Your task to perform on an android device: Open the calendar app, open the side menu, and click the "Day" option Image 0: 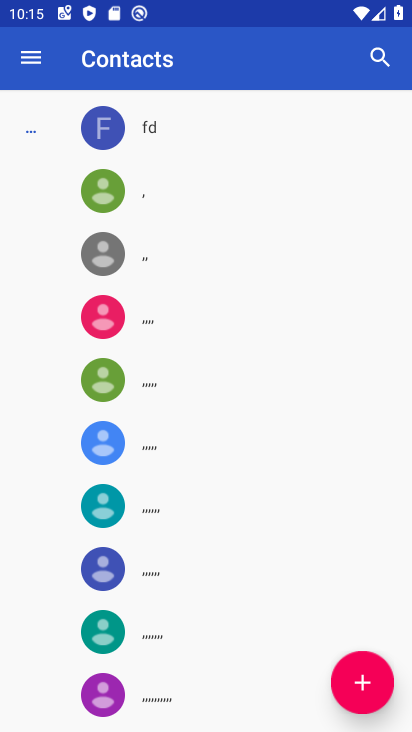
Step 0: press home button
Your task to perform on an android device: Open the calendar app, open the side menu, and click the "Day" option Image 1: 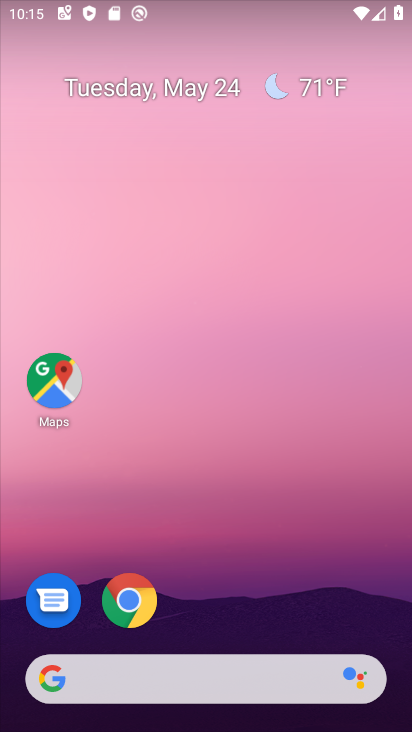
Step 1: drag from (268, 593) to (132, 32)
Your task to perform on an android device: Open the calendar app, open the side menu, and click the "Day" option Image 2: 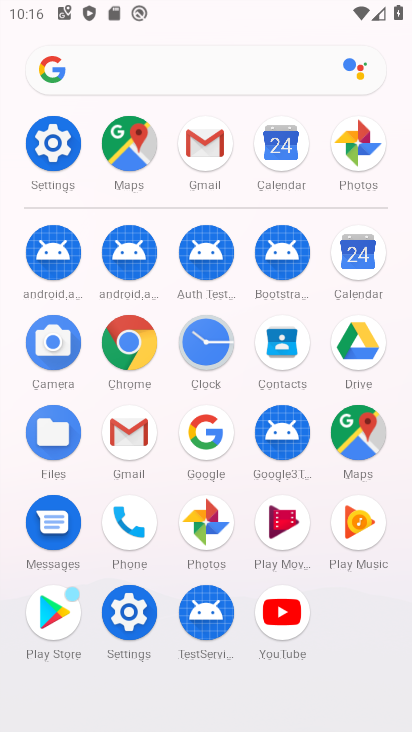
Step 2: click (351, 278)
Your task to perform on an android device: Open the calendar app, open the side menu, and click the "Day" option Image 3: 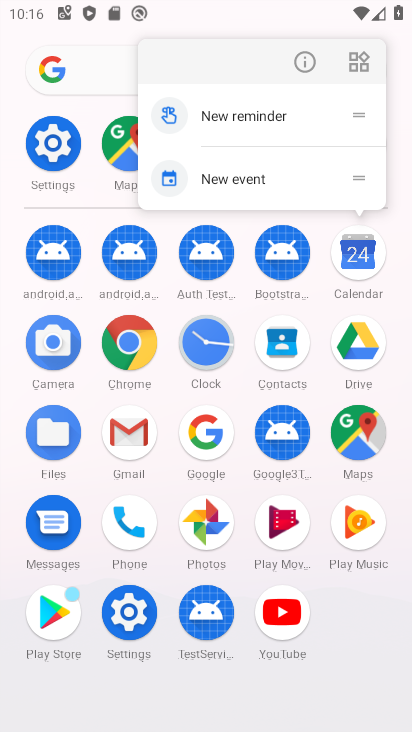
Step 3: click (374, 263)
Your task to perform on an android device: Open the calendar app, open the side menu, and click the "Day" option Image 4: 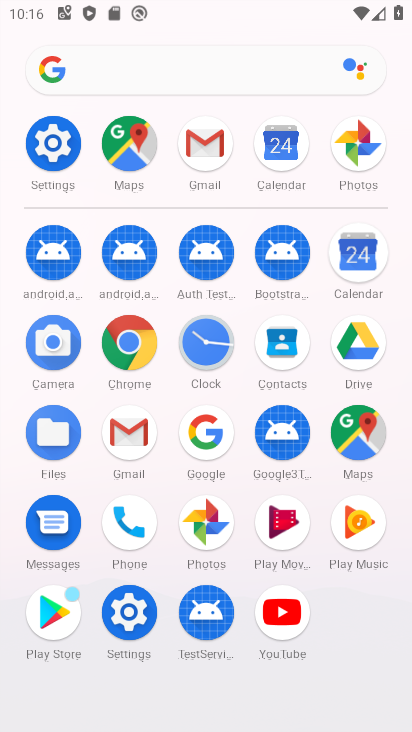
Step 4: click (354, 291)
Your task to perform on an android device: Open the calendar app, open the side menu, and click the "Day" option Image 5: 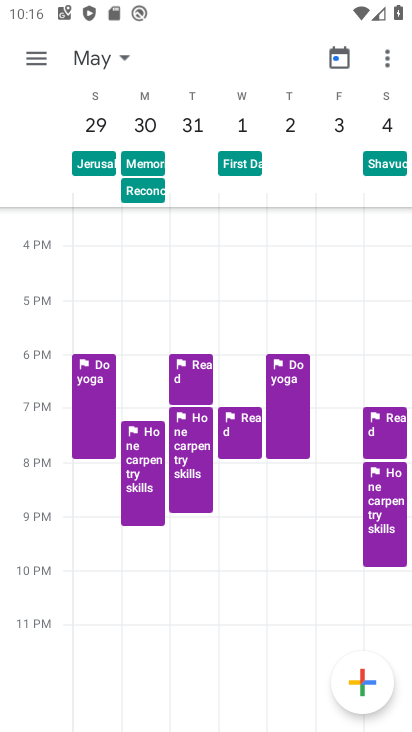
Step 5: click (26, 62)
Your task to perform on an android device: Open the calendar app, open the side menu, and click the "Day" option Image 6: 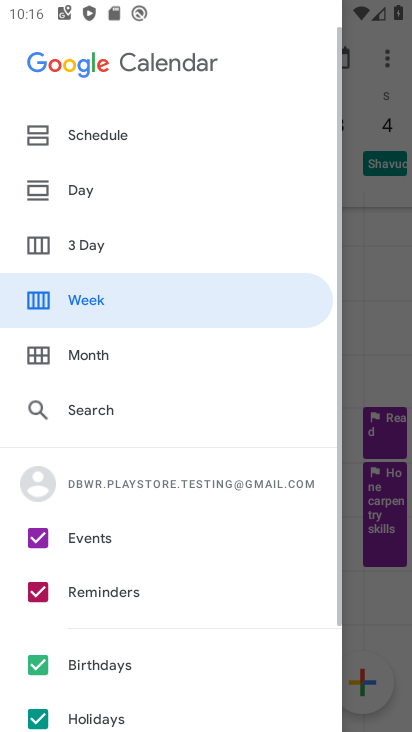
Step 6: click (70, 189)
Your task to perform on an android device: Open the calendar app, open the side menu, and click the "Day" option Image 7: 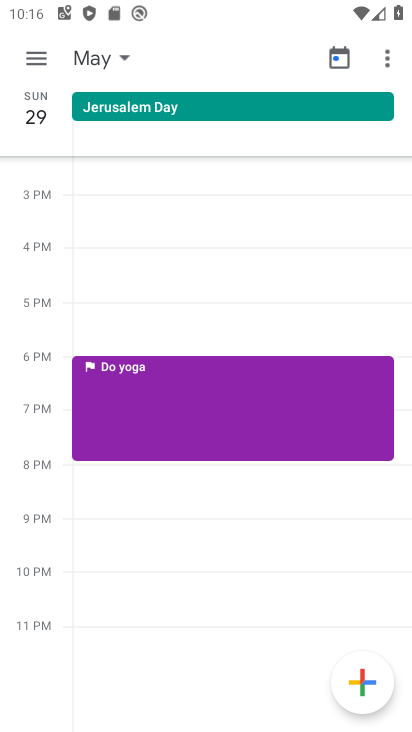
Step 7: task complete